Your task to perform on an android device: manage bookmarks in the chrome app Image 0: 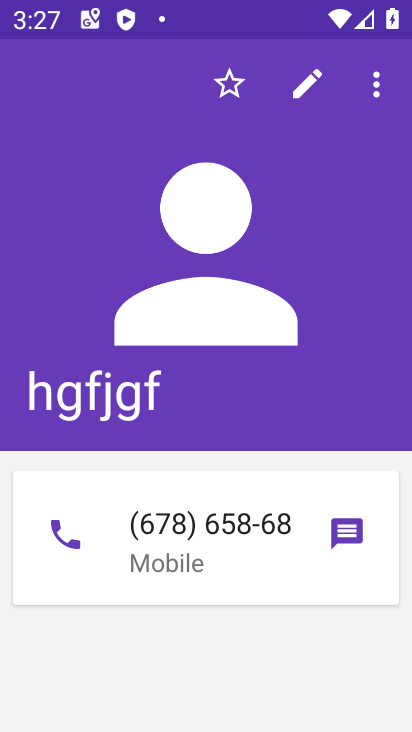
Step 0: press home button
Your task to perform on an android device: manage bookmarks in the chrome app Image 1: 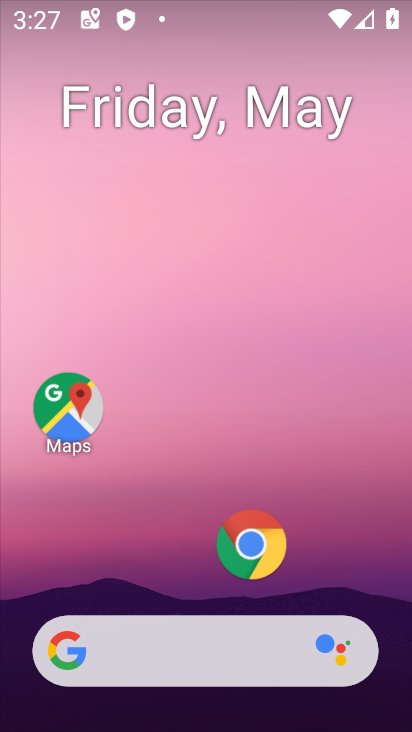
Step 1: click (244, 543)
Your task to perform on an android device: manage bookmarks in the chrome app Image 2: 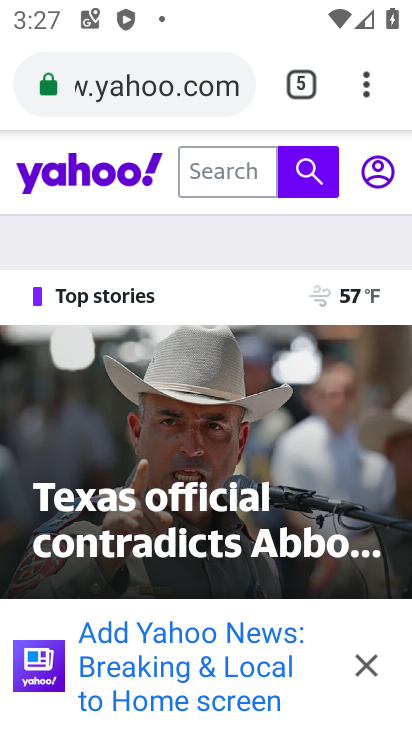
Step 2: drag from (361, 82) to (181, 309)
Your task to perform on an android device: manage bookmarks in the chrome app Image 3: 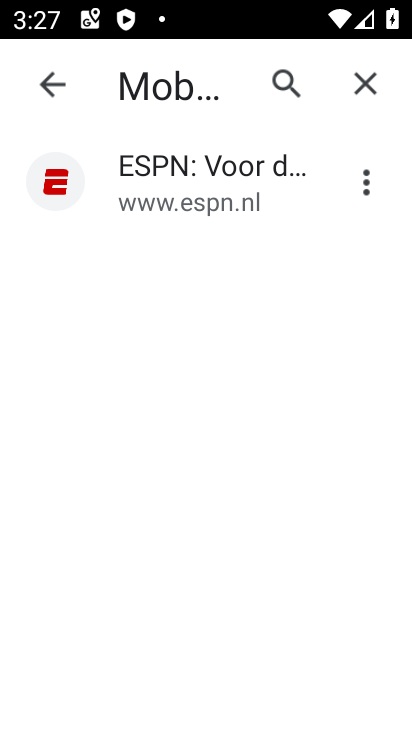
Step 3: click (362, 189)
Your task to perform on an android device: manage bookmarks in the chrome app Image 4: 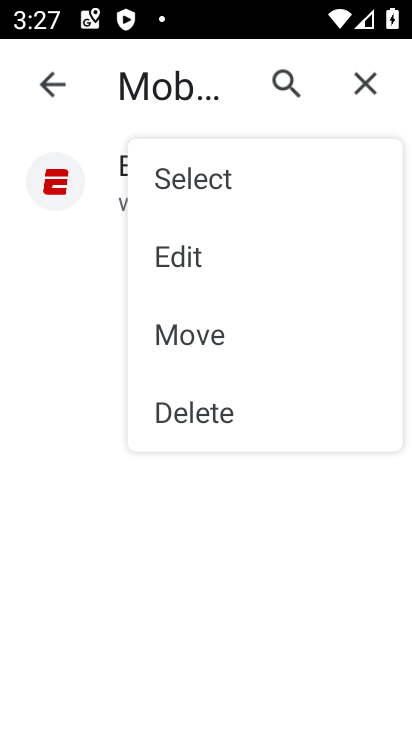
Step 4: click (188, 410)
Your task to perform on an android device: manage bookmarks in the chrome app Image 5: 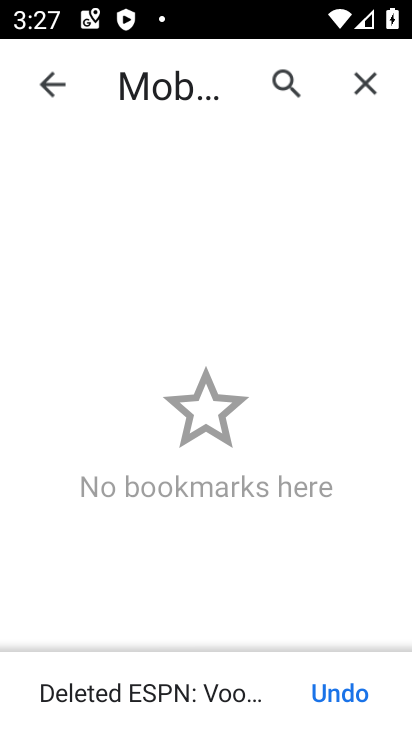
Step 5: task complete